Your task to perform on an android device: Open battery settings Image 0: 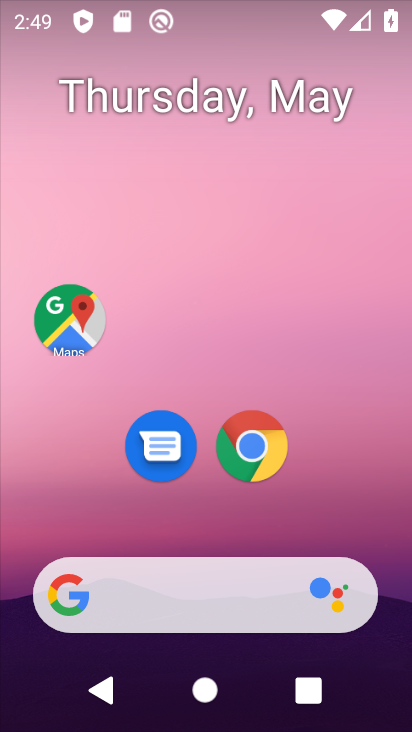
Step 0: drag from (359, 503) to (316, 17)
Your task to perform on an android device: Open battery settings Image 1: 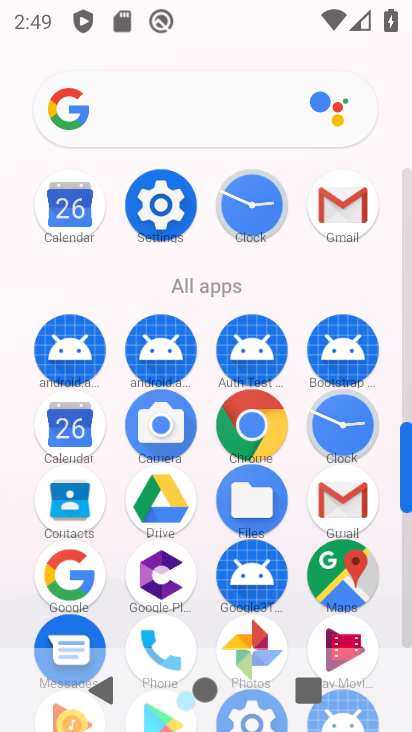
Step 1: click (157, 206)
Your task to perform on an android device: Open battery settings Image 2: 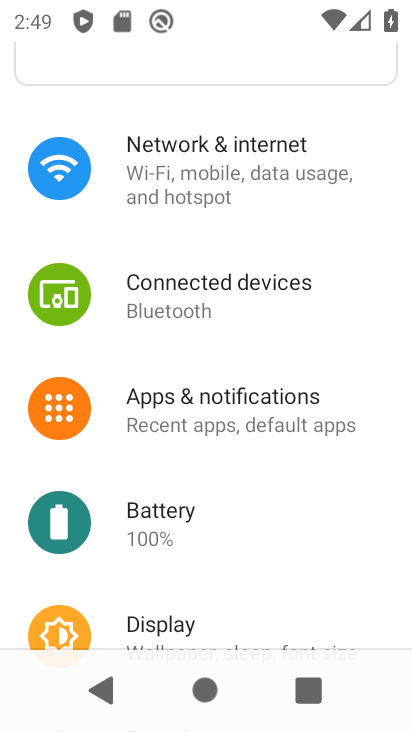
Step 2: click (157, 521)
Your task to perform on an android device: Open battery settings Image 3: 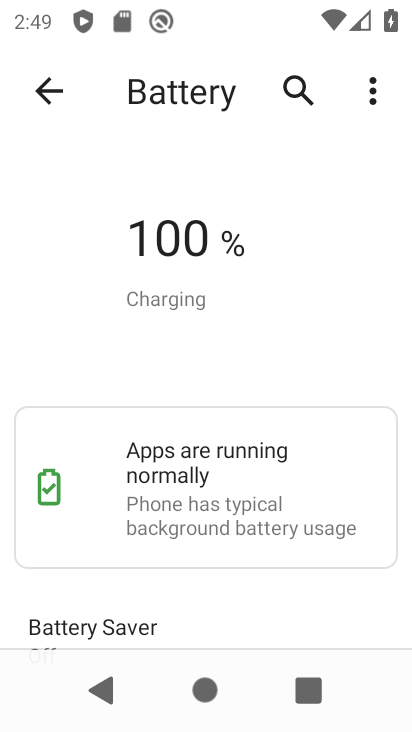
Step 3: task complete